Your task to perform on an android device: open app "Indeed Job Search" (install if not already installed) Image 0: 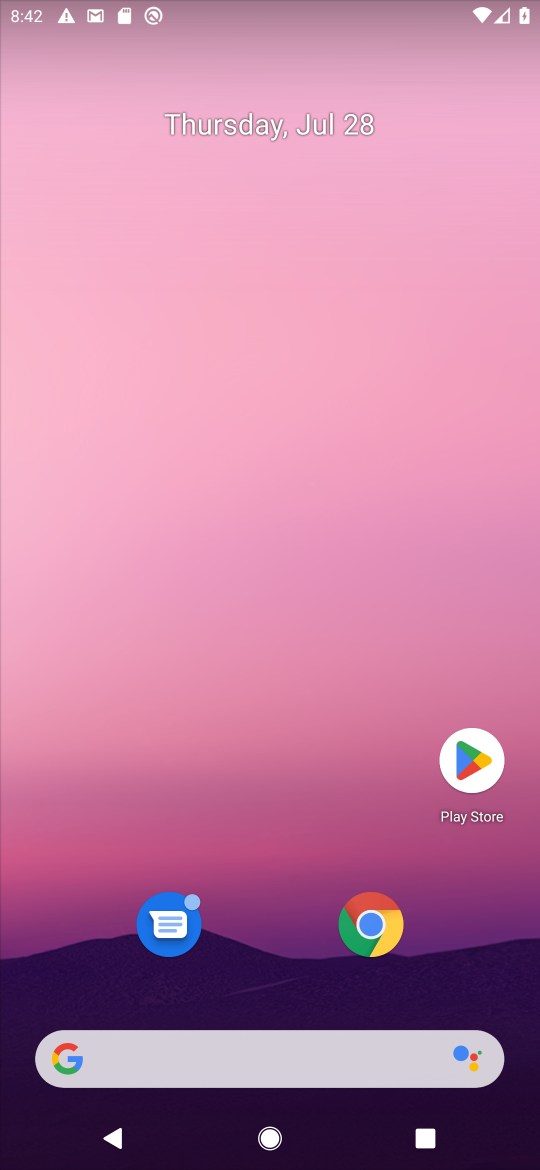
Step 0: press home button
Your task to perform on an android device: open app "Indeed Job Search" (install if not already installed) Image 1: 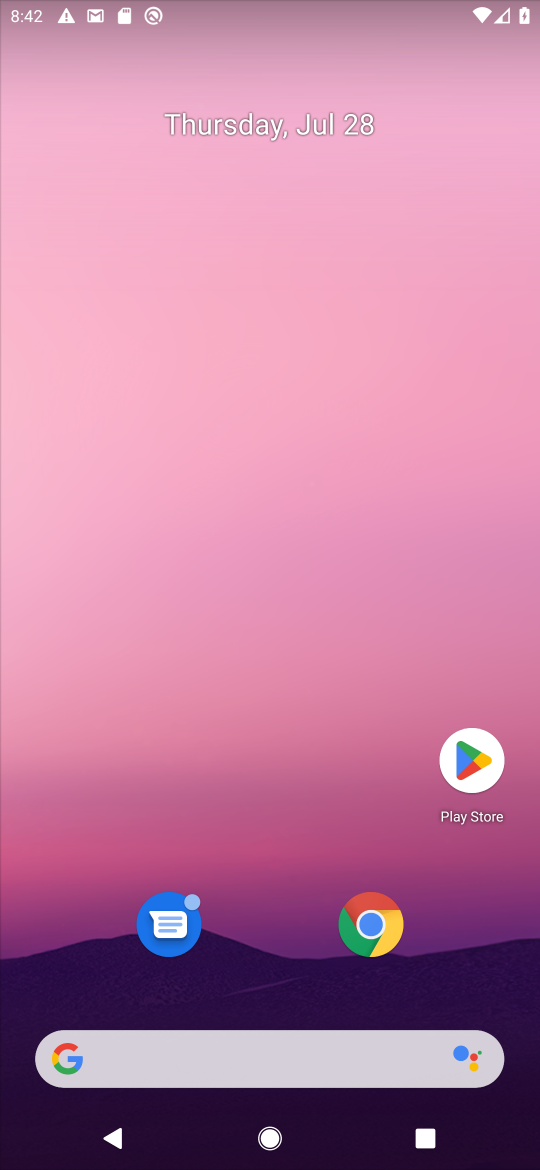
Step 1: click (470, 759)
Your task to perform on an android device: open app "Indeed Job Search" (install if not already installed) Image 2: 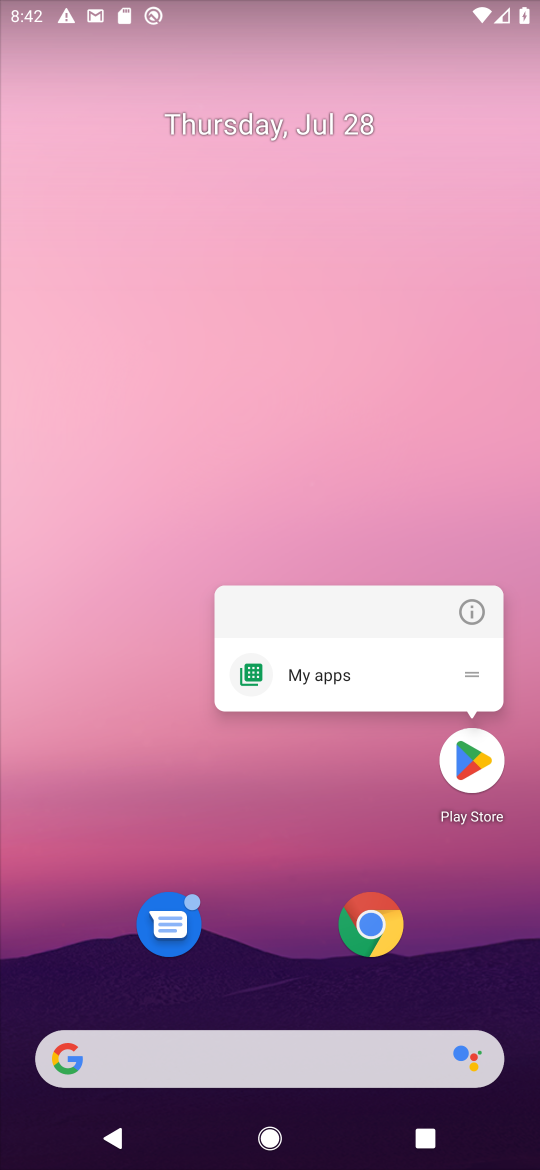
Step 2: click (470, 765)
Your task to perform on an android device: open app "Indeed Job Search" (install if not already installed) Image 3: 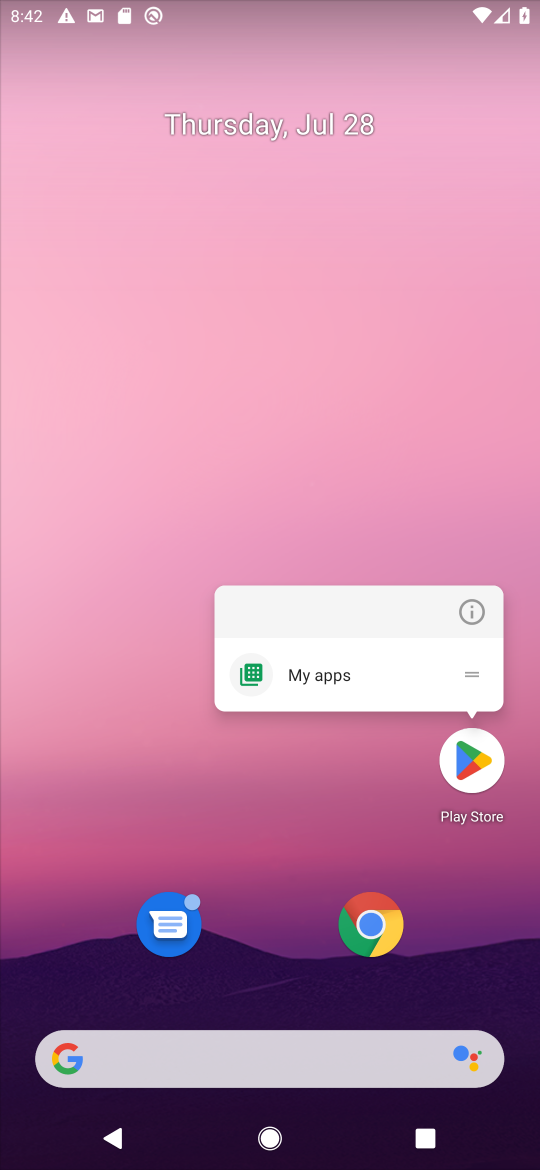
Step 3: click (470, 763)
Your task to perform on an android device: open app "Indeed Job Search" (install if not already installed) Image 4: 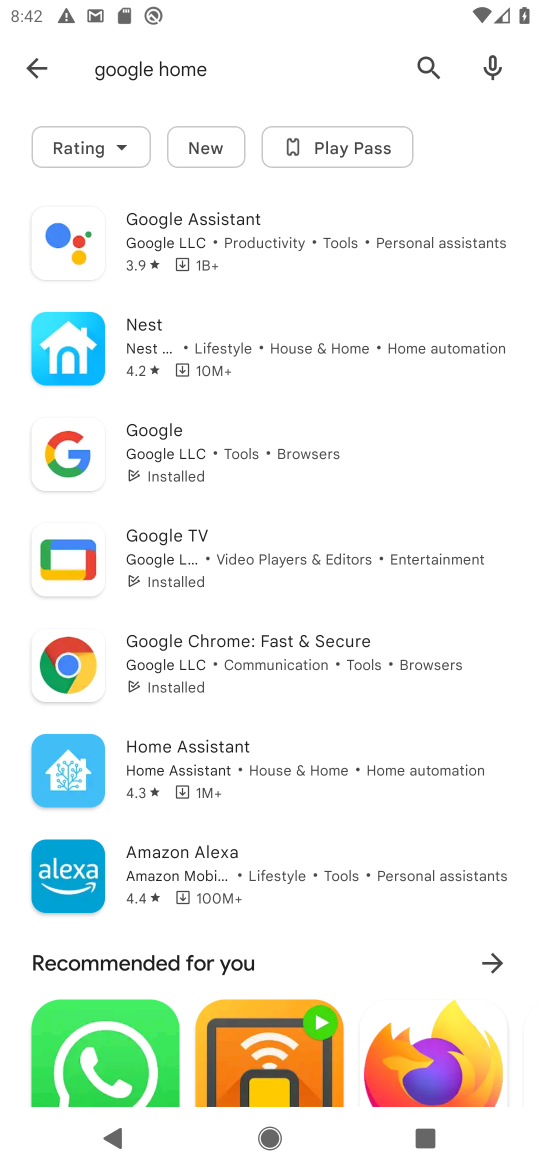
Step 4: click (420, 65)
Your task to perform on an android device: open app "Indeed Job Search" (install if not already installed) Image 5: 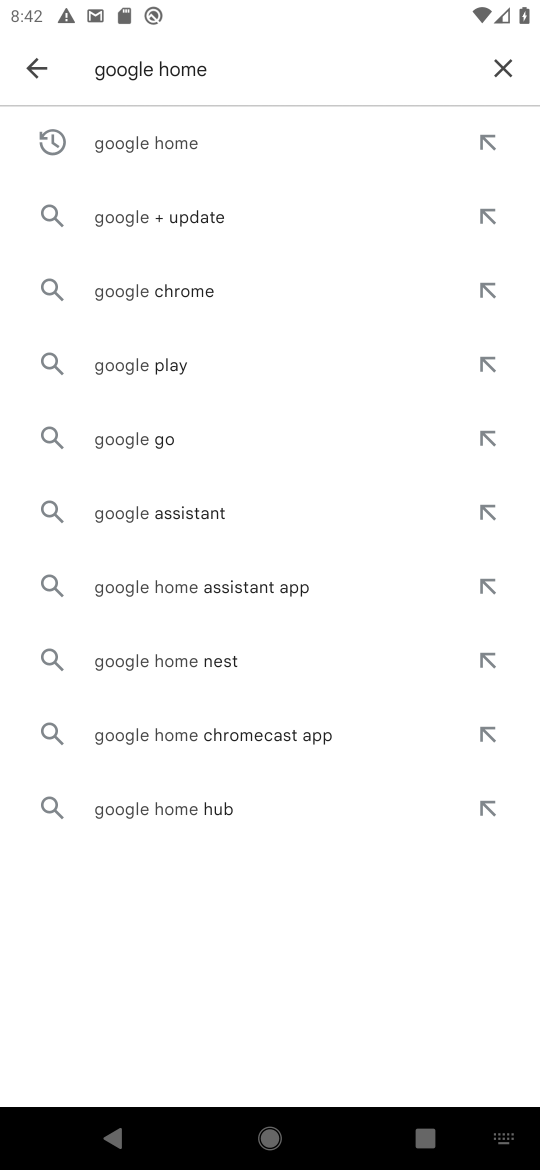
Step 5: click (499, 71)
Your task to perform on an android device: open app "Indeed Job Search" (install if not already installed) Image 6: 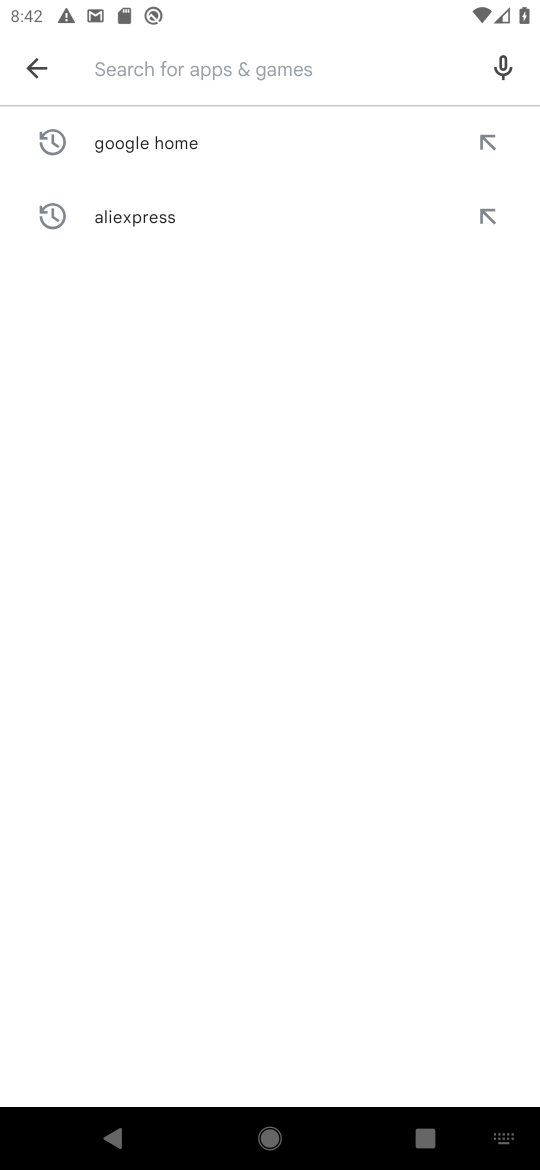
Step 6: type "Indeed Job Search"
Your task to perform on an android device: open app "Indeed Job Search" (install if not already installed) Image 7: 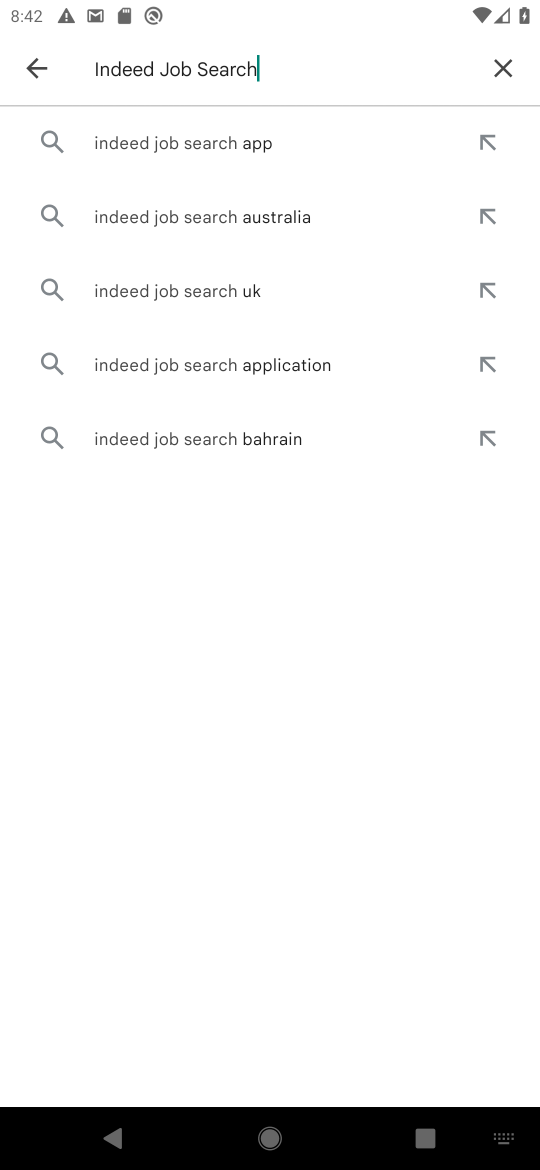
Step 7: click (233, 142)
Your task to perform on an android device: open app "Indeed Job Search" (install if not already installed) Image 8: 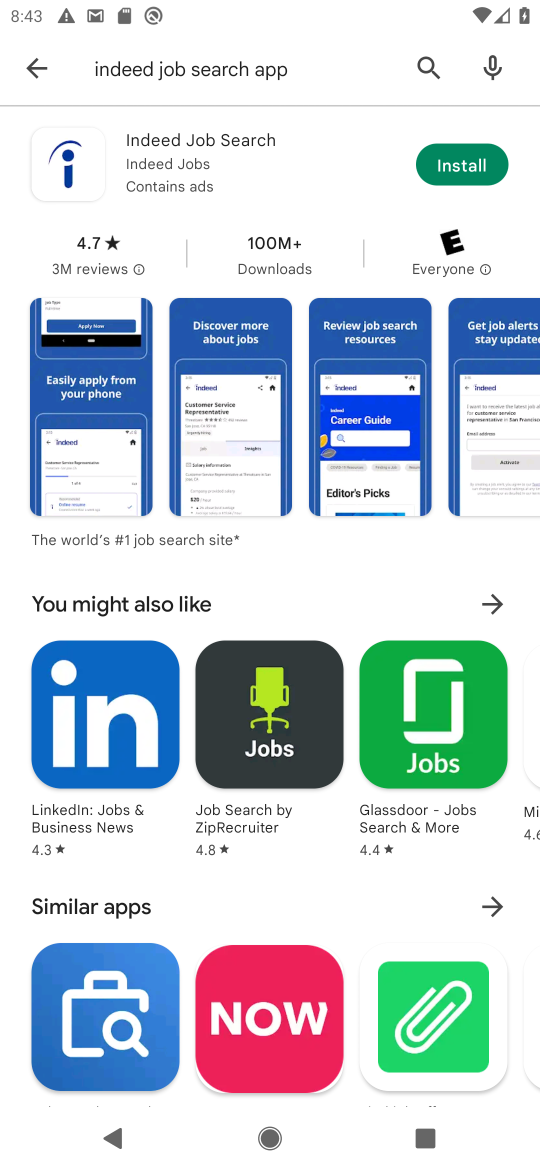
Step 8: click (475, 164)
Your task to perform on an android device: open app "Indeed Job Search" (install if not already installed) Image 9: 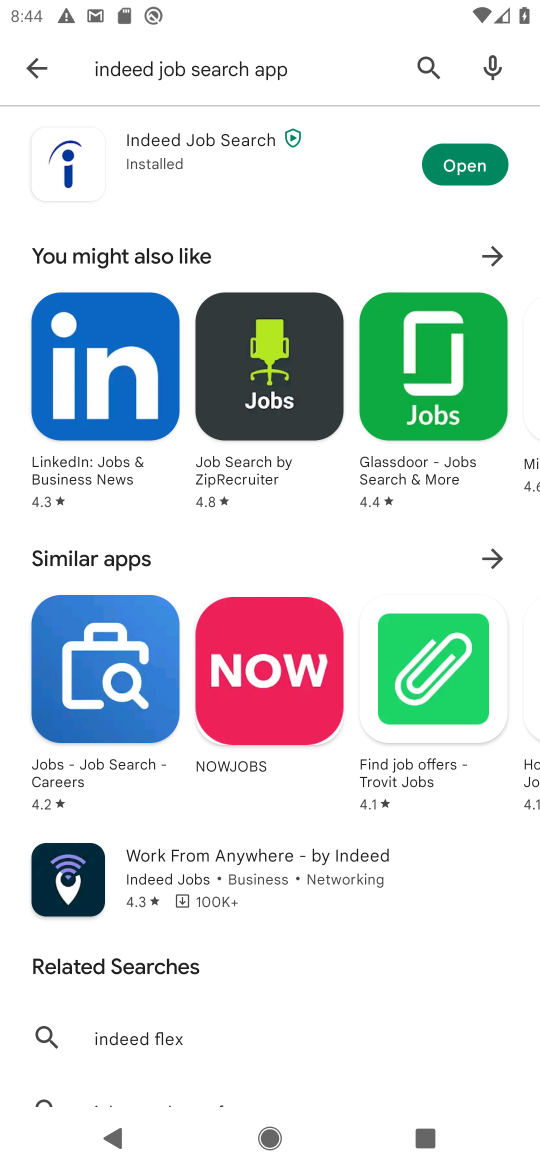
Step 9: click (452, 166)
Your task to perform on an android device: open app "Indeed Job Search" (install if not already installed) Image 10: 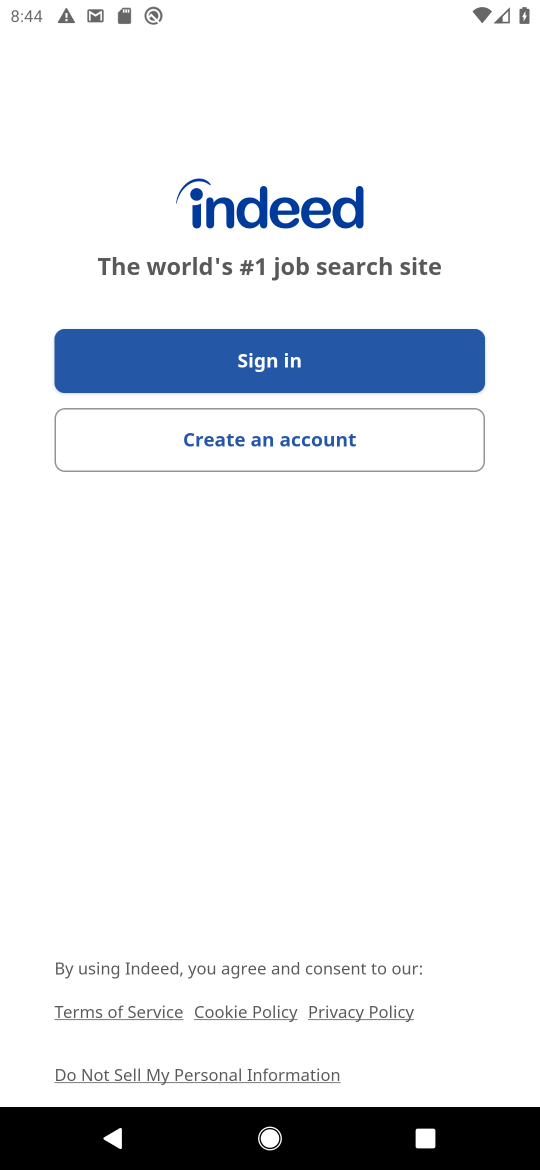
Step 10: task complete